Your task to perform on an android device: delete the emails in spam in the gmail app Image 0: 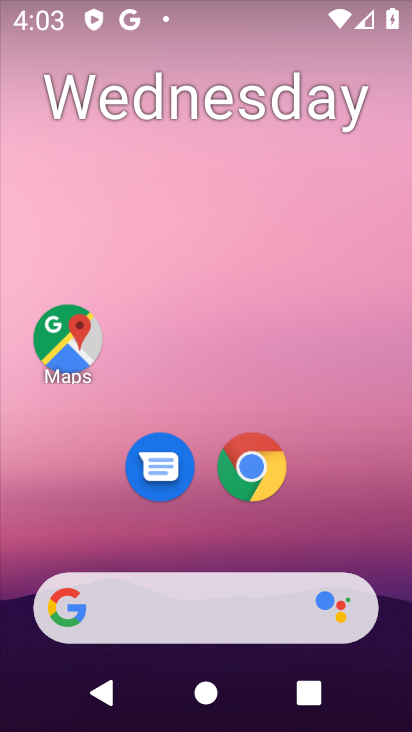
Step 0: drag from (217, 475) to (227, 86)
Your task to perform on an android device: delete the emails in spam in the gmail app Image 1: 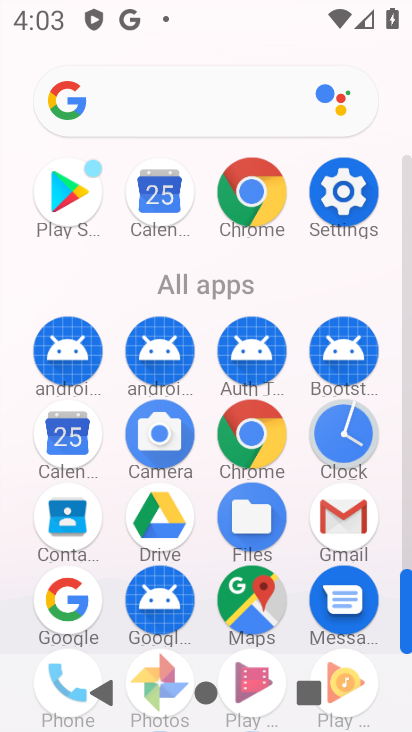
Step 1: click (377, 507)
Your task to perform on an android device: delete the emails in spam in the gmail app Image 2: 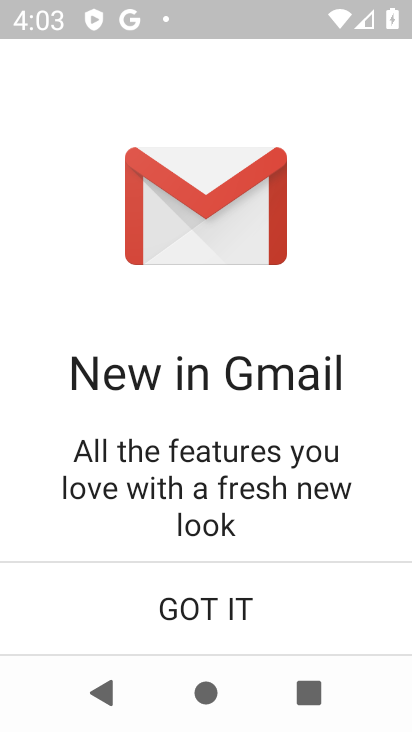
Step 2: click (192, 619)
Your task to perform on an android device: delete the emails in spam in the gmail app Image 3: 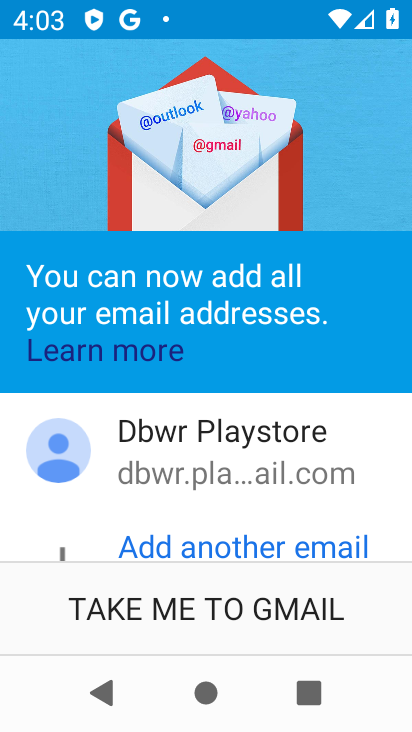
Step 3: click (215, 613)
Your task to perform on an android device: delete the emails in spam in the gmail app Image 4: 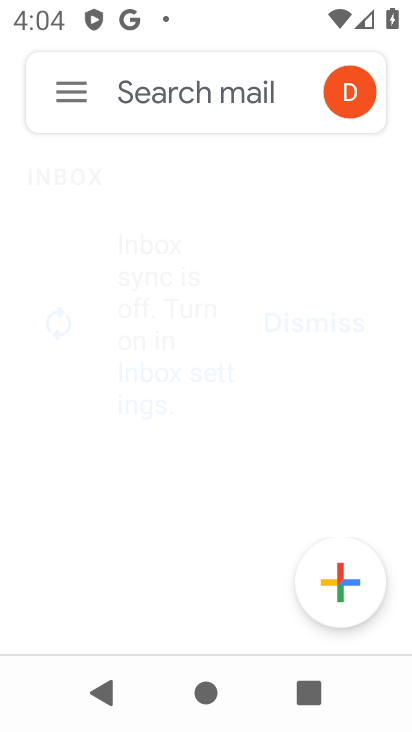
Step 4: click (77, 104)
Your task to perform on an android device: delete the emails in spam in the gmail app Image 5: 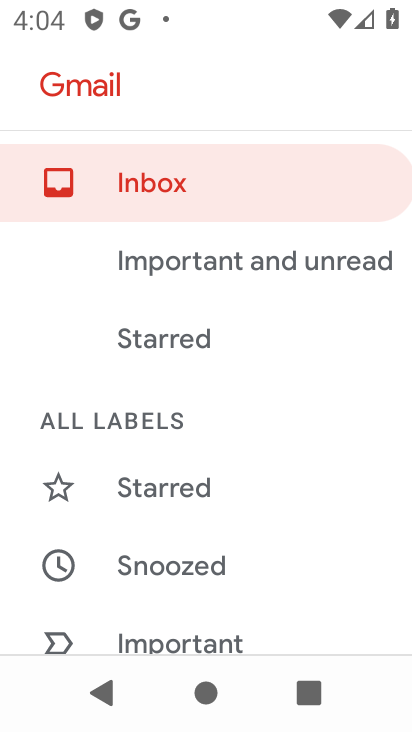
Step 5: drag from (172, 494) to (207, 213)
Your task to perform on an android device: delete the emails in spam in the gmail app Image 6: 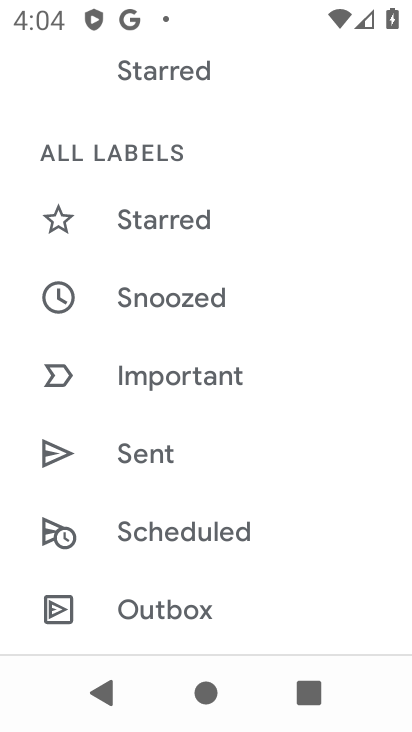
Step 6: drag from (149, 587) to (211, 127)
Your task to perform on an android device: delete the emails in spam in the gmail app Image 7: 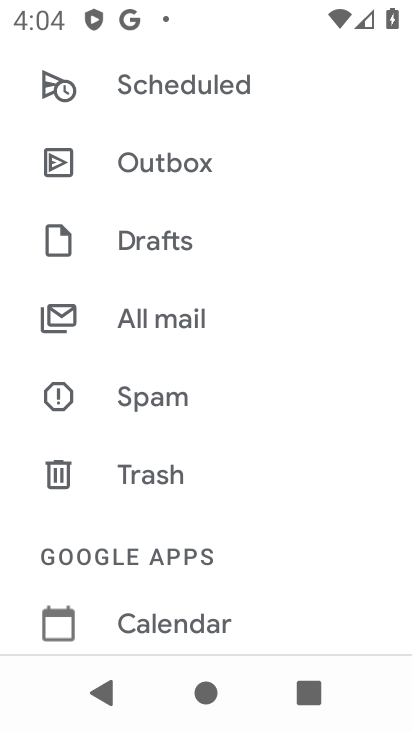
Step 7: click (158, 407)
Your task to perform on an android device: delete the emails in spam in the gmail app Image 8: 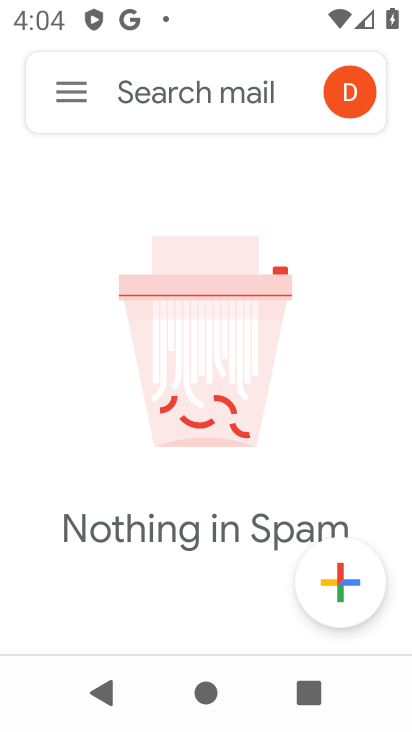
Step 8: task complete